Your task to perform on an android device: turn on improve location accuracy Image 0: 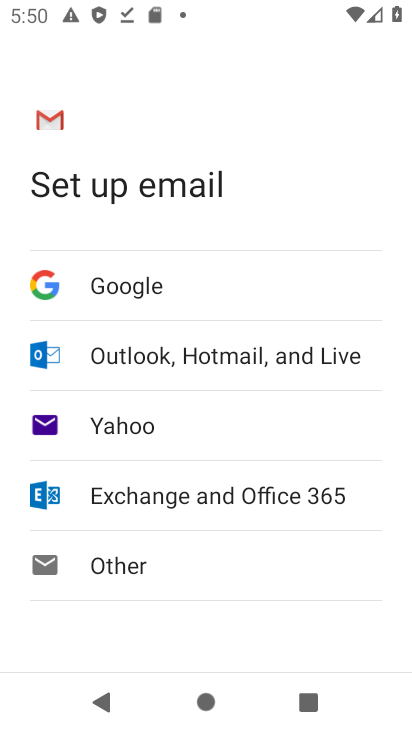
Step 0: press home button
Your task to perform on an android device: turn on improve location accuracy Image 1: 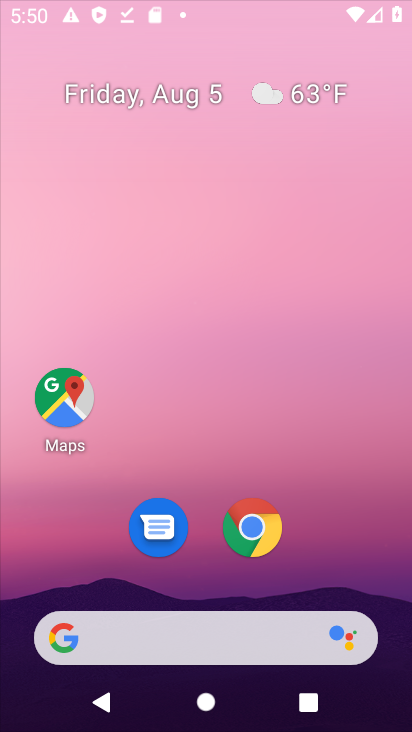
Step 1: drag from (189, 564) to (220, 210)
Your task to perform on an android device: turn on improve location accuracy Image 2: 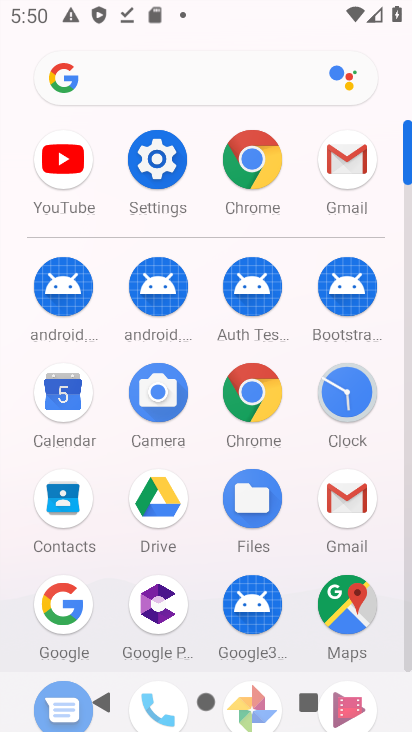
Step 2: click (149, 144)
Your task to perform on an android device: turn on improve location accuracy Image 3: 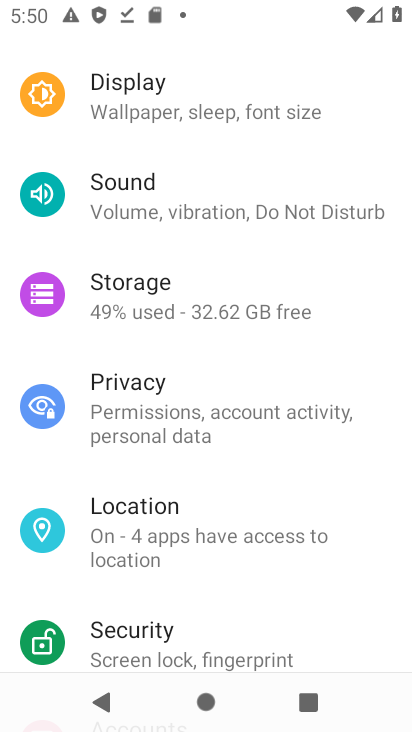
Step 3: drag from (218, 578) to (209, 276)
Your task to perform on an android device: turn on improve location accuracy Image 4: 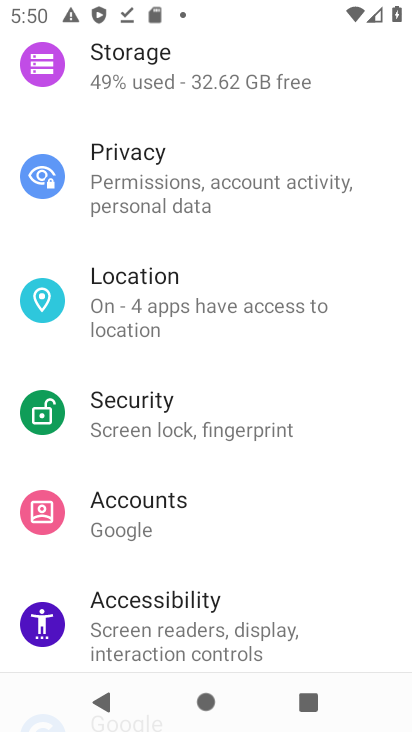
Step 4: click (198, 317)
Your task to perform on an android device: turn on improve location accuracy Image 5: 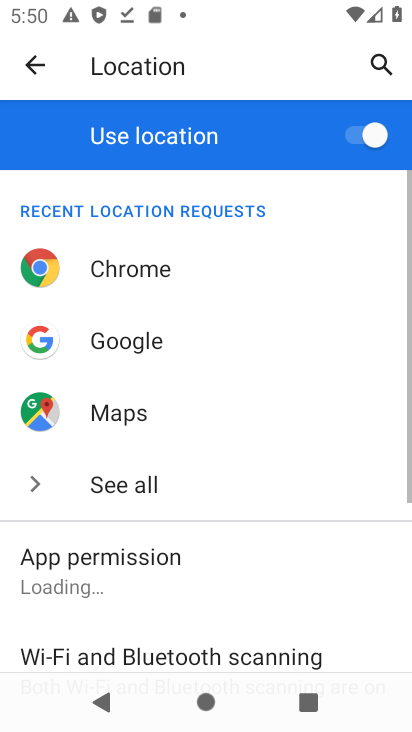
Step 5: drag from (185, 573) to (203, 248)
Your task to perform on an android device: turn on improve location accuracy Image 6: 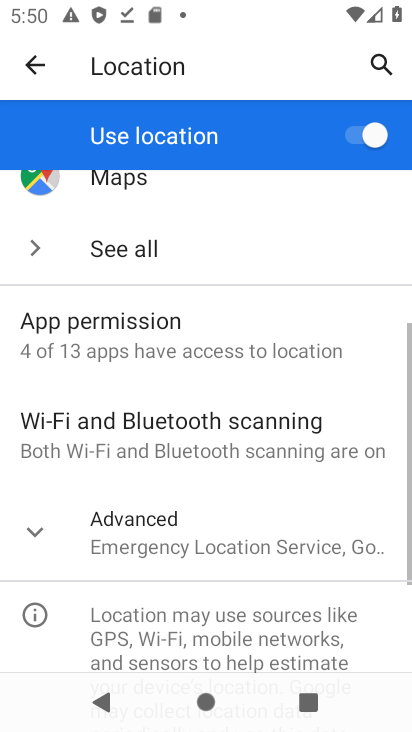
Step 6: click (179, 527)
Your task to perform on an android device: turn on improve location accuracy Image 7: 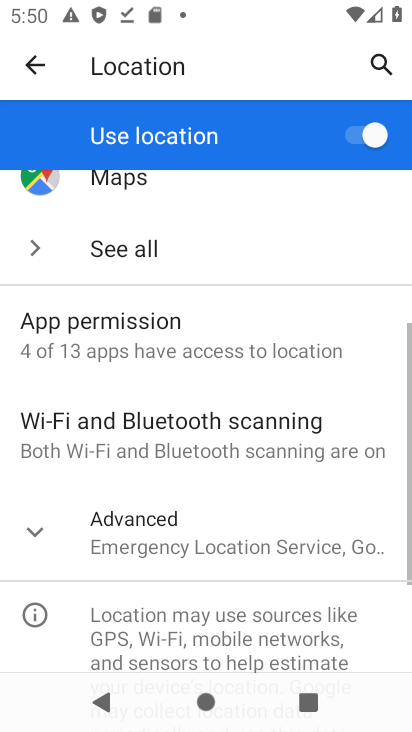
Step 7: click (179, 527)
Your task to perform on an android device: turn on improve location accuracy Image 8: 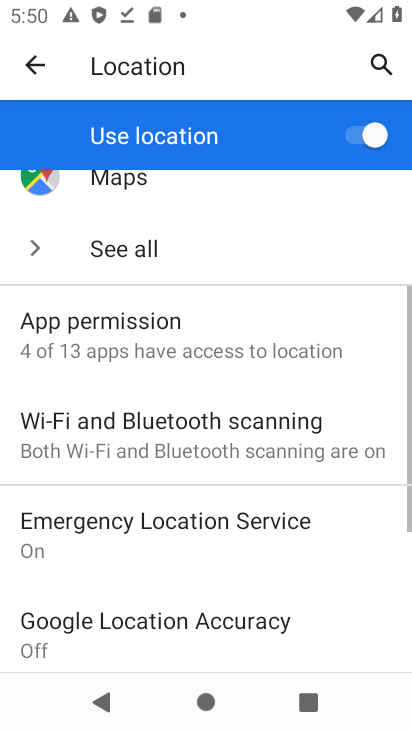
Step 8: drag from (218, 633) to (241, 198)
Your task to perform on an android device: turn on improve location accuracy Image 9: 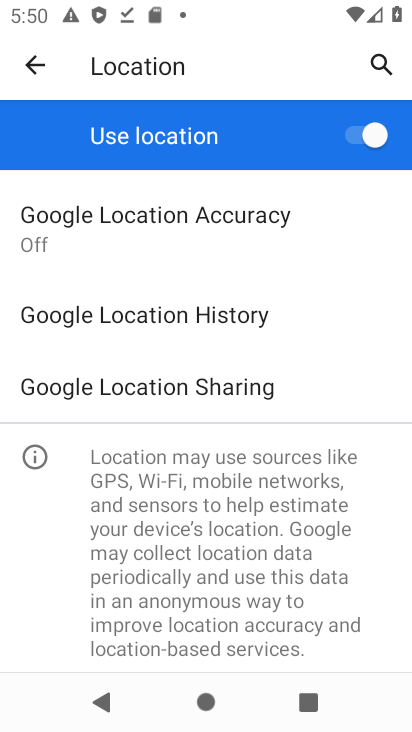
Step 9: click (215, 227)
Your task to perform on an android device: turn on improve location accuracy Image 10: 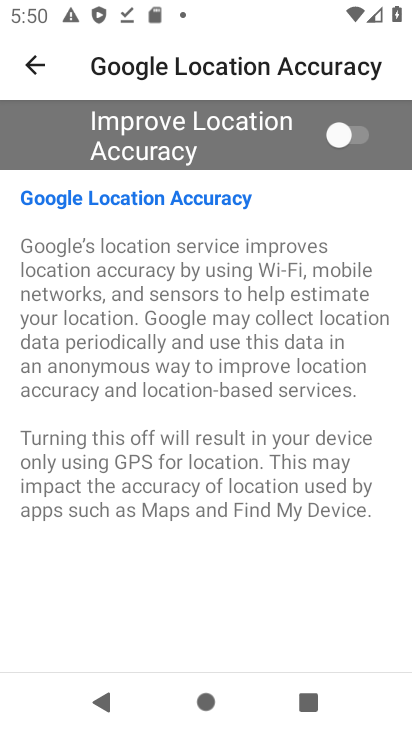
Step 10: drag from (221, 609) to (186, 312)
Your task to perform on an android device: turn on improve location accuracy Image 11: 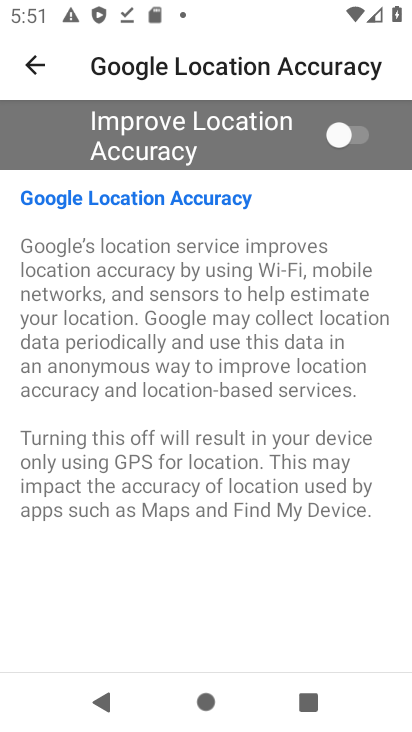
Step 11: click (322, 128)
Your task to perform on an android device: turn on improve location accuracy Image 12: 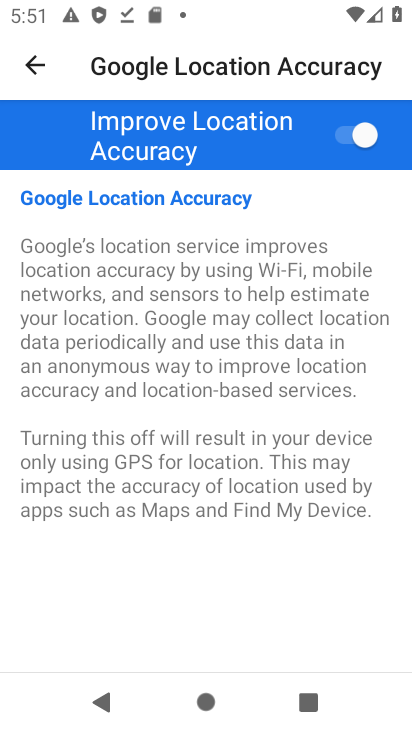
Step 12: task complete